Your task to perform on an android device: Open Android settings Image 0: 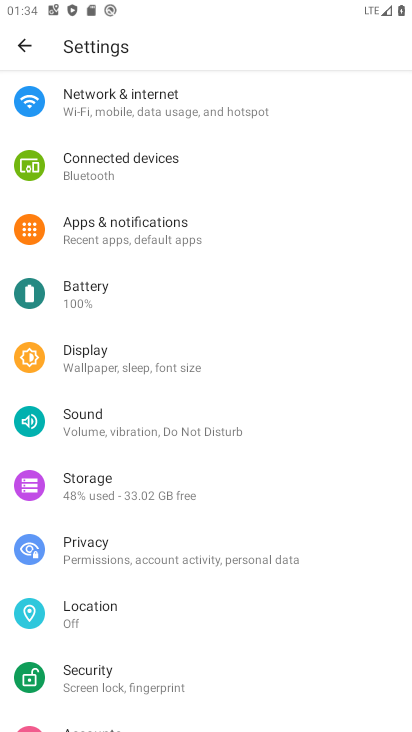
Step 0: task complete